Your task to perform on an android device: Clear the shopping cart on walmart. Search for "logitech g910" on walmart, select the first entry, and add it to the cart. Image 0: 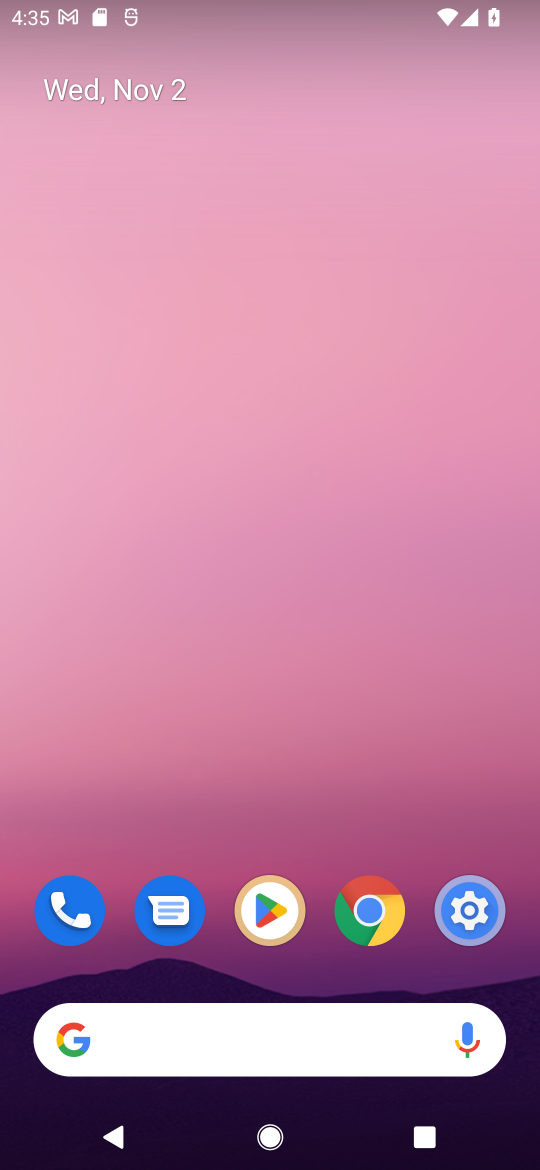
Step 0: click (296, 1045)
Your task to perform on an android device: Clear the shopping cart on walmart. Search for "logitech g910" on walmart, select the first entry, and add it to the cart. Image 1: 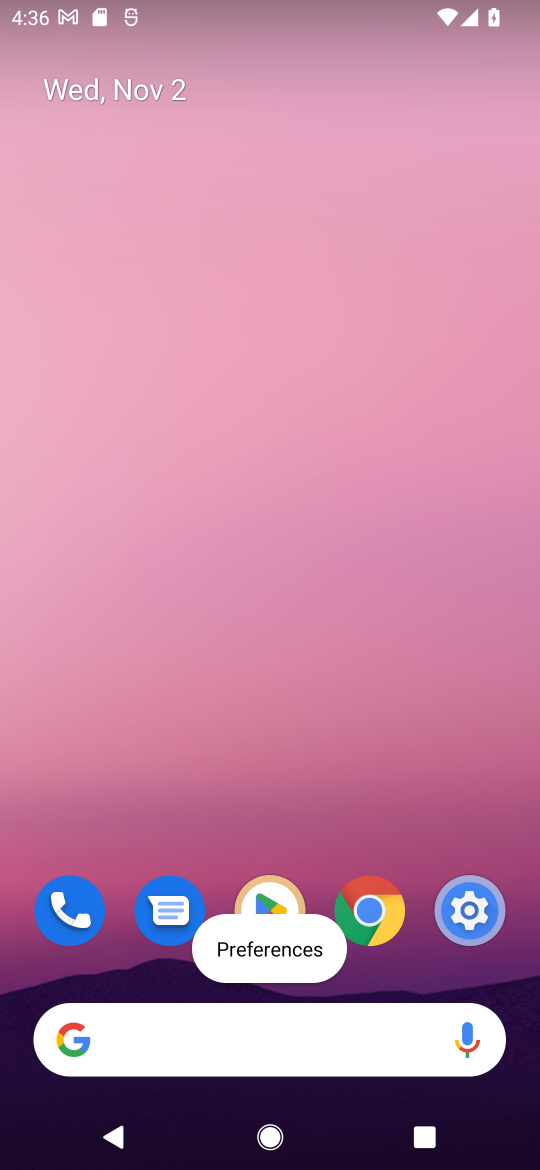
Step 1: click (293, 1042)
Your task to perform on an android device: Clear the shopping cart on walmart. Search for "logitech g910" on walmart, select the first entry, and add it to the cart. Image 2: 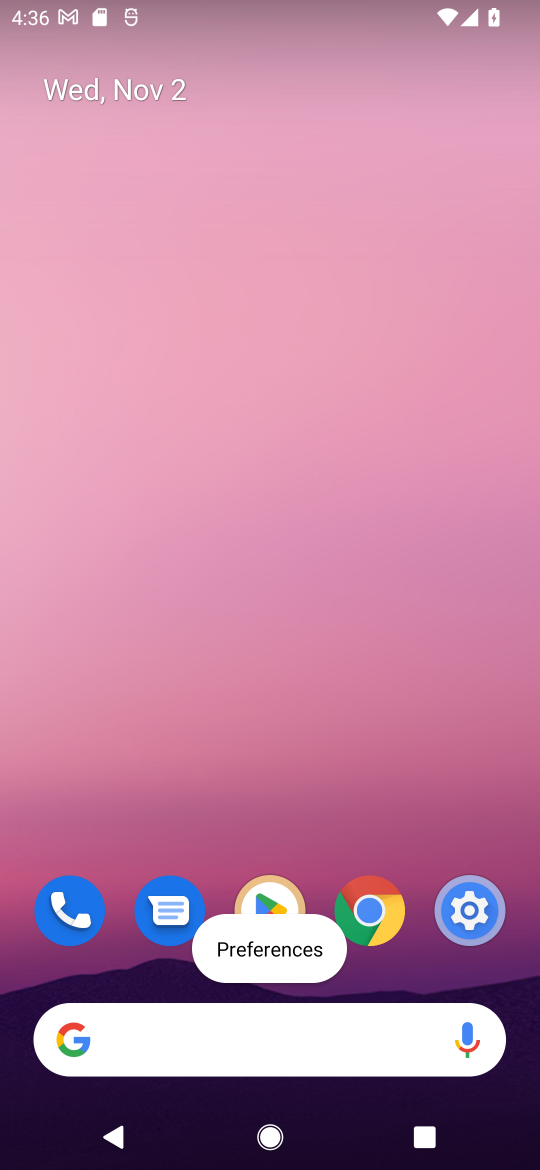
Step 2: click (228, 1026)
Your task to perform on an android device: Clear the shopping cart on walmart. Search for "logitech g910" on walmart, select the first entry, and add it to the cart. Image 3: 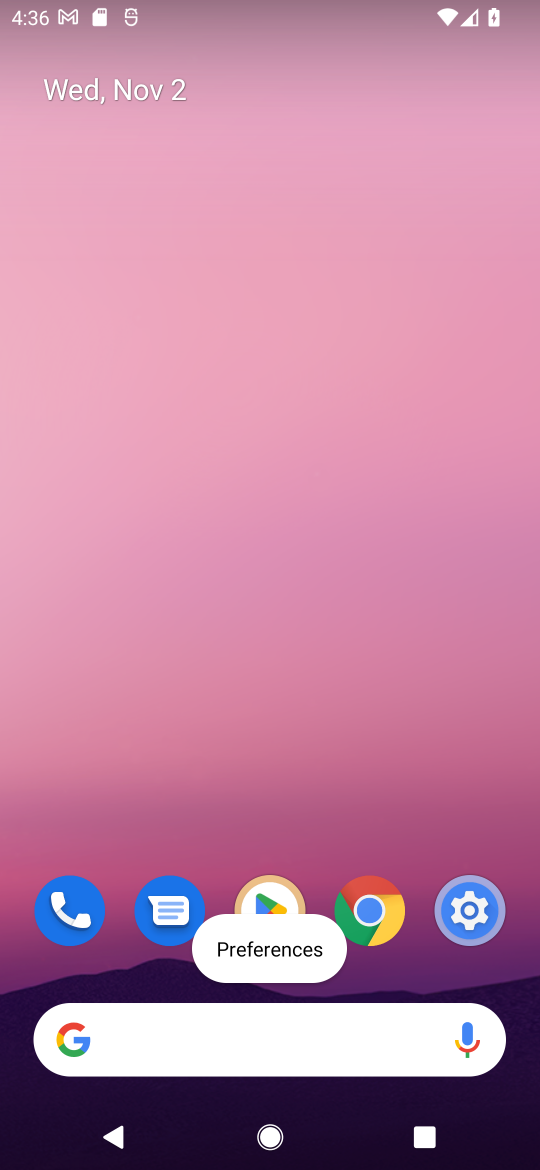
Step 3: click (174, 1034)
Your task to perform on an android device: Clear the shopping cart on walmart. Search for "logitech g910" on walmart, select the first entry, and add it to the cart. Image 4: 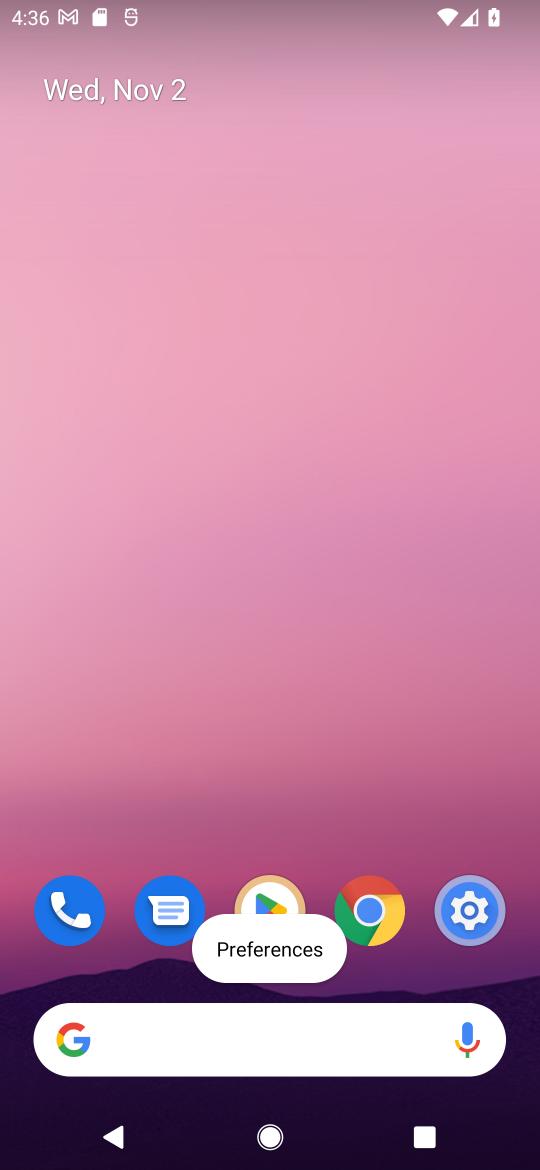
Step 4: click (174, 1034)
Your task to perform on an android device: Clear the shopping cart on walmart. Search for "logitech g910" on walmart, select the first entry, and add it to the cart. Image 5: 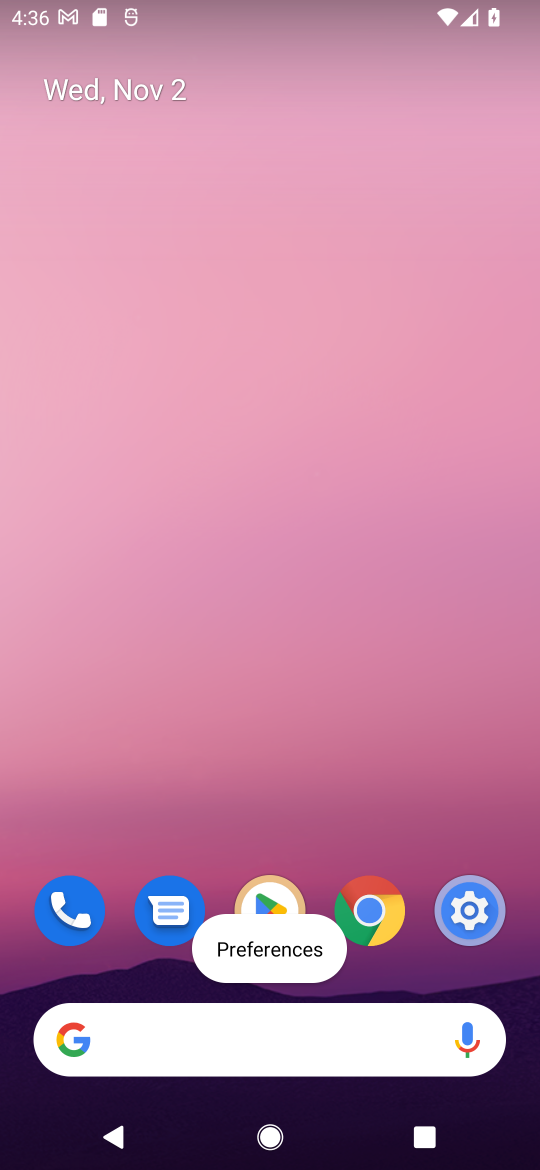
Step 5: click (174, 1034)
Your task to perform on an android device: Clear the shopping cart on walmart. Search for "logitech g910" on walmart, select the first entry, and add it to the cart. Image 6: 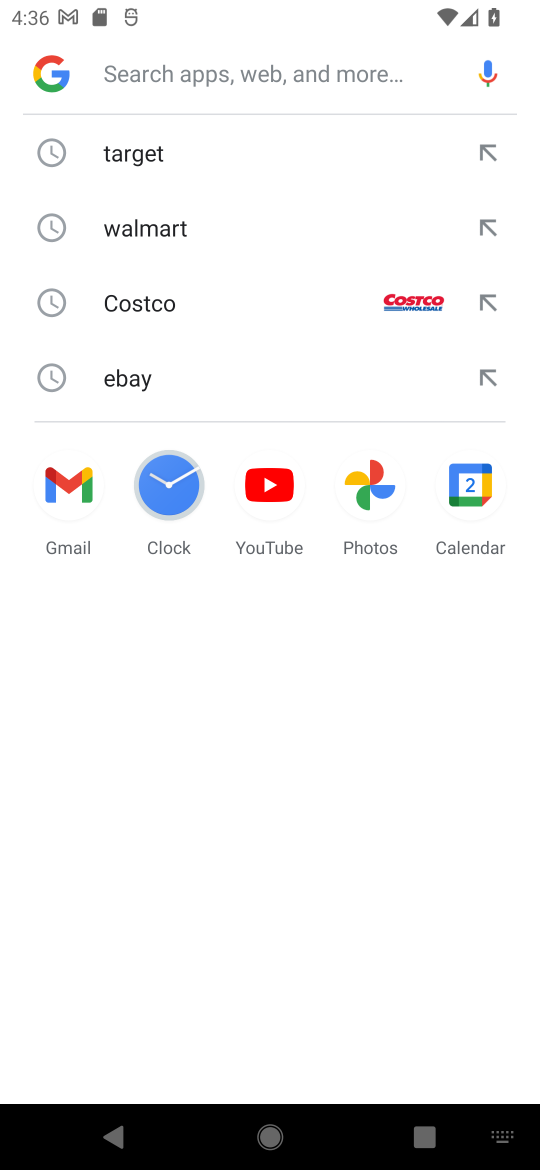
Step 6: type "walmart"
Your task to perform on an android device: Clear the shopping cart on walmart. Search for "logitech g910" on walmart, select the first entry, and add it to the cart. Image 7: 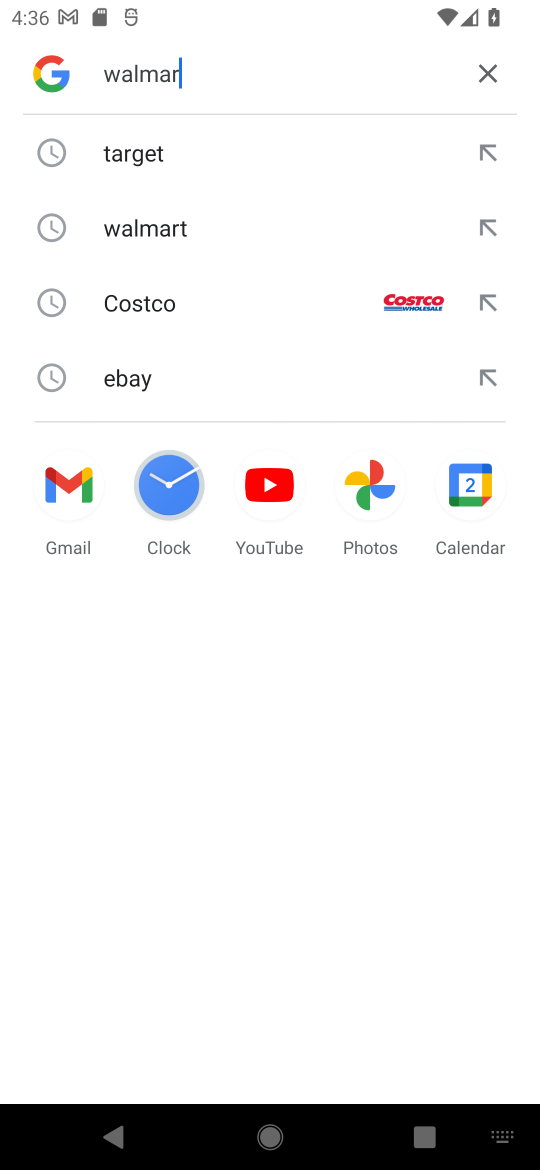
Step 7: type ""
Your task to perform on an android device: Clear the shopping cart on walmart. Search for "logitech g910" on walmart, select the first entry, and add it to the cart. Image 8: 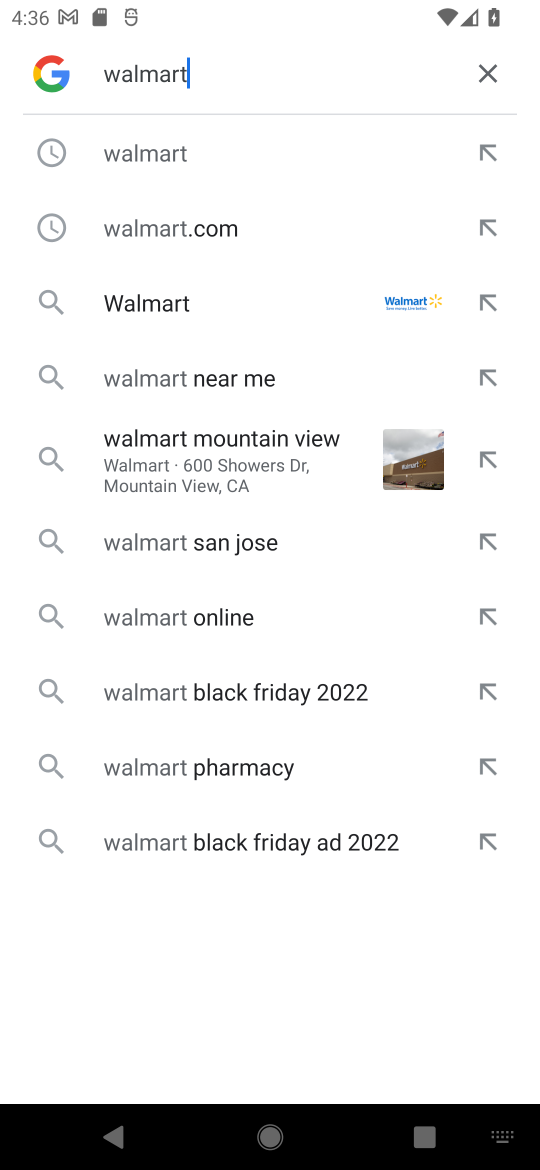
Step 8: press enter
Your task to perform on an android device: Clear the shopping cart on walmart. Search for "logitech g910" on walmart, select the first entry, and add it to the cart. Image 9: 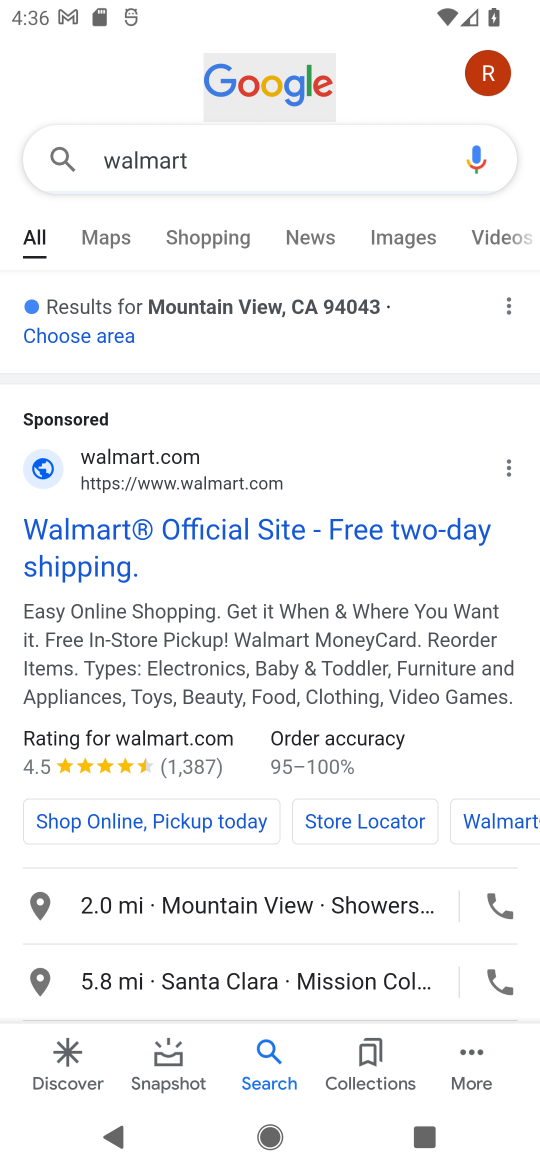
Step 9: click (128, 529)
Your task to perform on an android device: Clear the shopping cart on walmart. Search for "logitech g910" on walmart, select the first entry, and add it to the cart. Image 10: 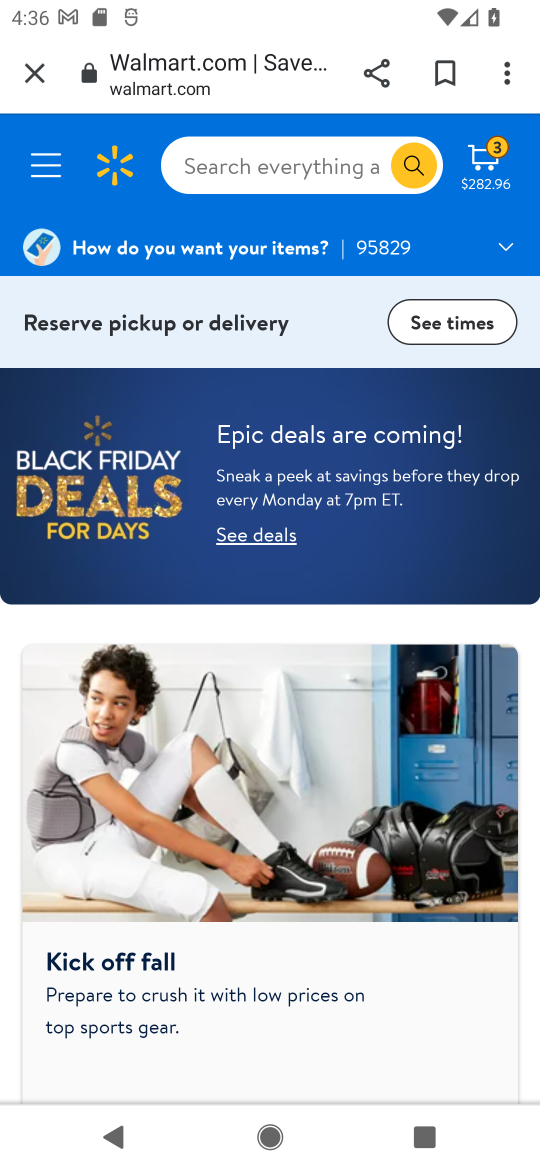
Step 10: click (281, 144)
Your task to perform on an android device: Clear the shopping cart on walmart. Search for "logitech g910" on walmart, select the first entry, and add it to the cart. Image 11: 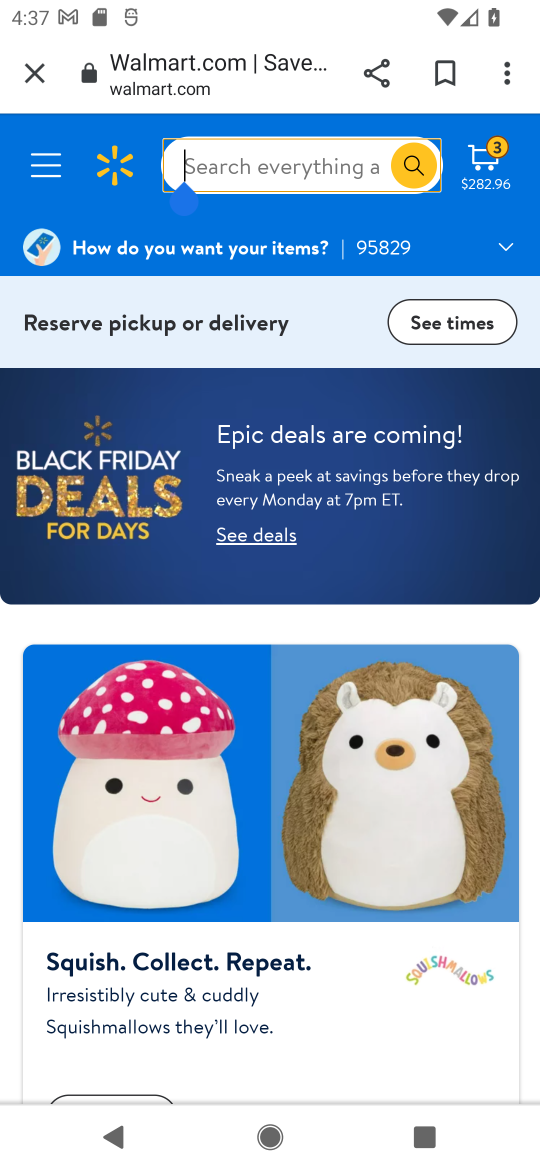
Step 11: click (277, 159)
Your task to perform on an android device: Clear the shopping cart on walmart. Search for "logitech g910" on walmart, select the first entry, and add it to the cart. Image 12: 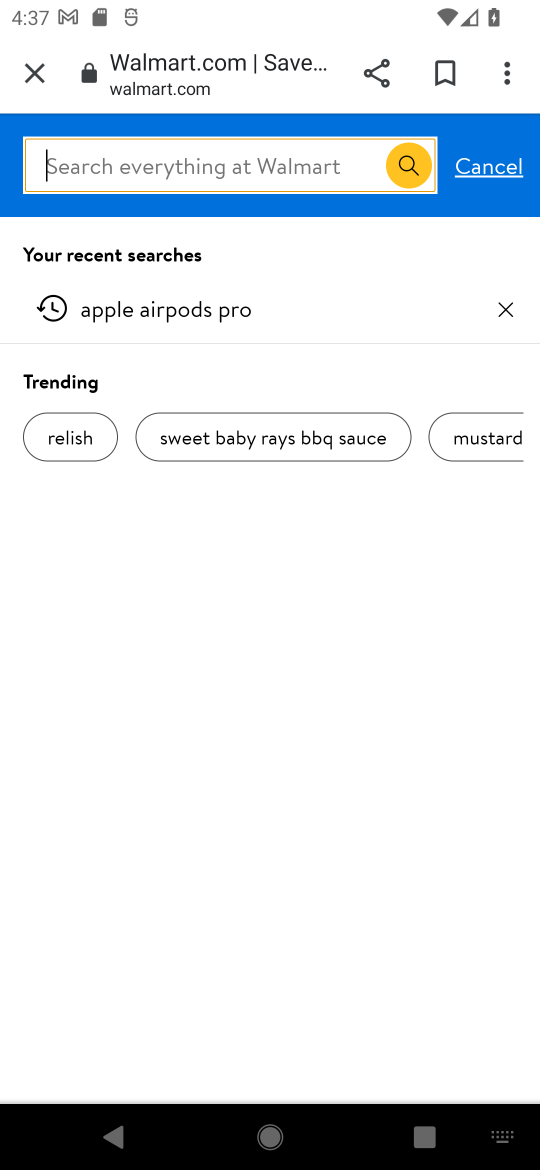
Step 12: click (496, 311)
Your task to perform on an android device: Clear the shopping cart on walmart. Search for "logitech g910" on walmart, select the first entry, and add it to the cart. Image 13: 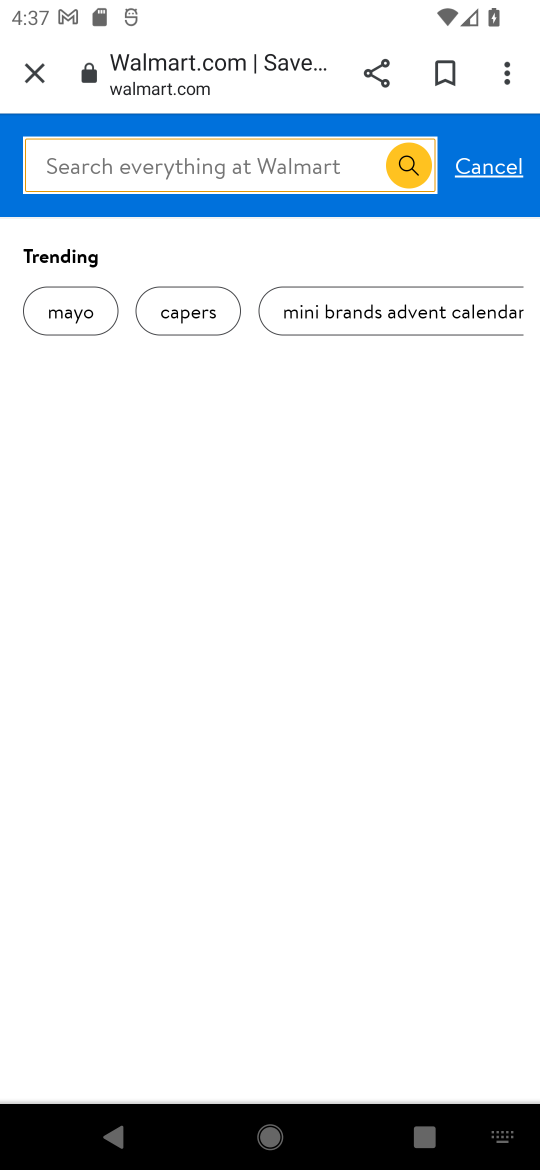
Step 13: click (502, 173)
Your task to perform on an android device: Clear the shopping cart on walmart. Search for "logitech g910" on walmart, select the first entry, and add it to the cart. Image 14: 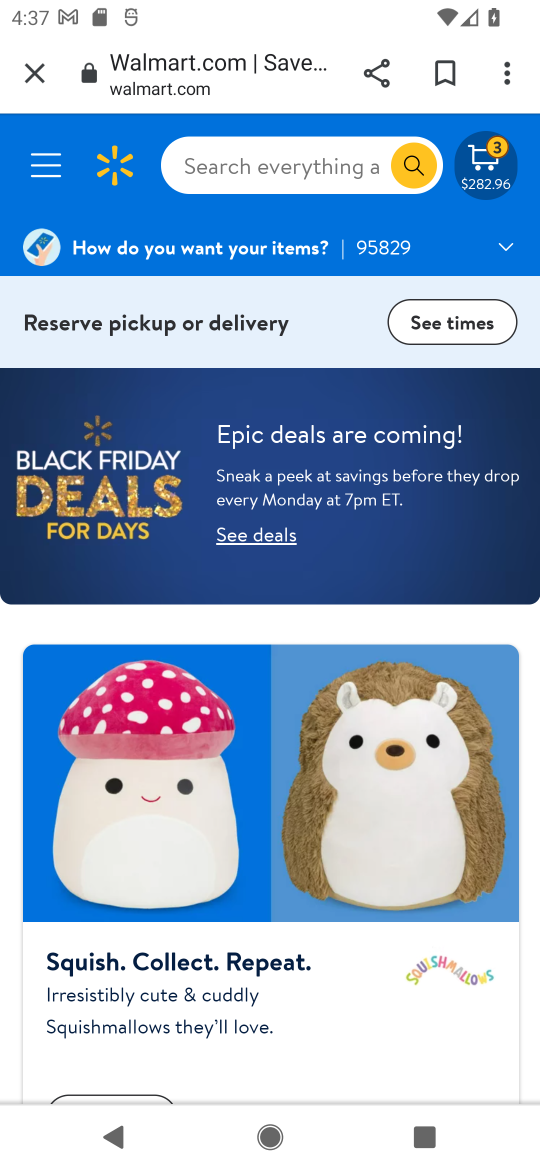
Step 14: click (502, 173)
Your task to perform on an android device: Clear the shopping cart on walmart. Search for "logitech g910" on walmart, select the first entry, and add it to the cart. Image 15: 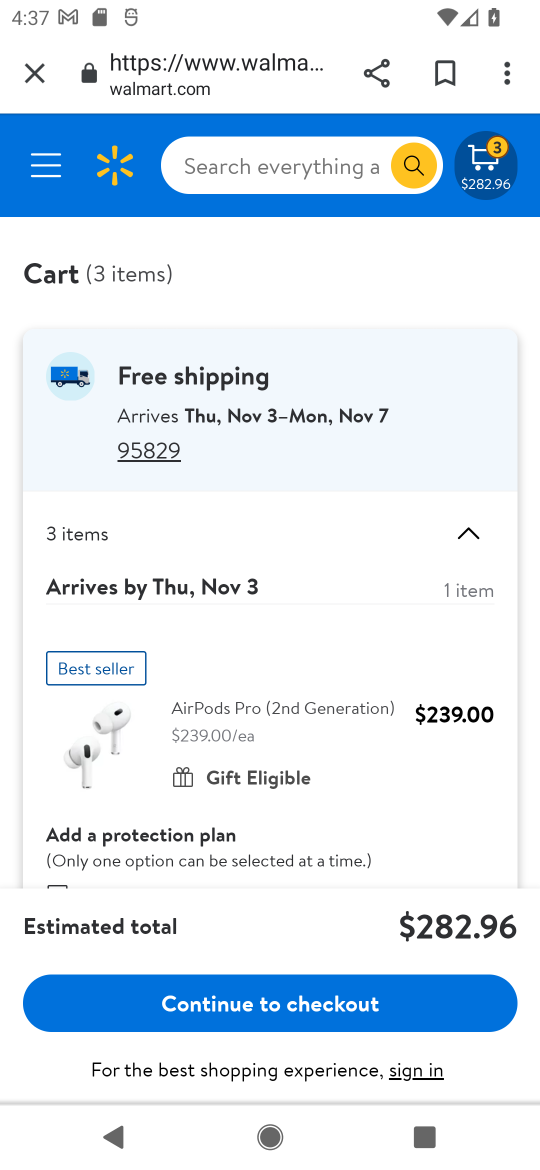
Step 15: click (496, 180)
Your task to perform on an android device: Clear the shopping cart on walmart. Search for "logitech g910" on walmart, select the first entry, and add it to the cart. Image 16: 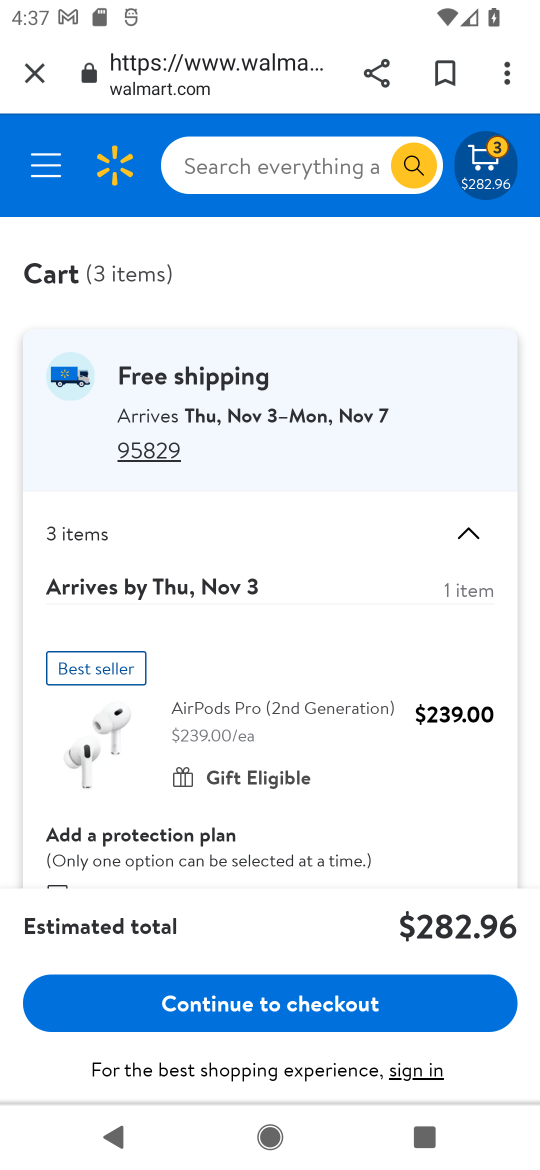
Step 16: drag from (396, 755) to (362, 513)
Your task to perform on an android device: Clear the shopping cart on walmart. Search for "logitech g910" on walmart, select the first entry, and add it to the cart. Image 17: 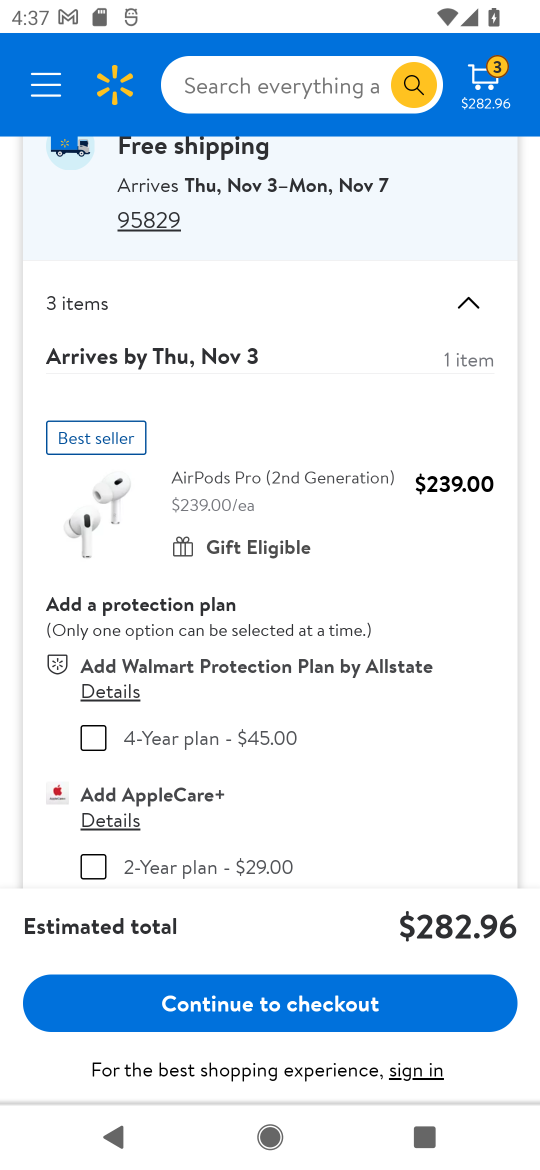
Step 17: drag from (356, 709) to (348, 570)
Your task to perform on an android device: Clear the shopping cart on walmart. Search for "logitech g910" on walmart, select the first entry, and add it to the cart. Image 18: 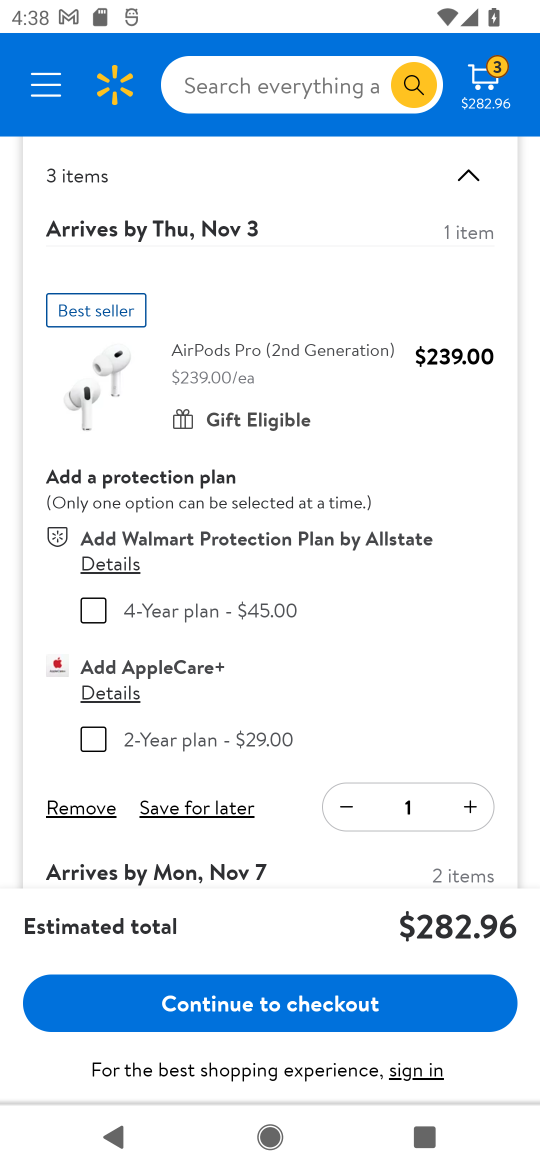
Step 18: drag from (377, 449) to (371, 353)
Your task to perform on an android device: Clear the shopping cart on walmart. Search for "logitech g910" on walmart, select the first entry, and add it to the cart. Image 19: 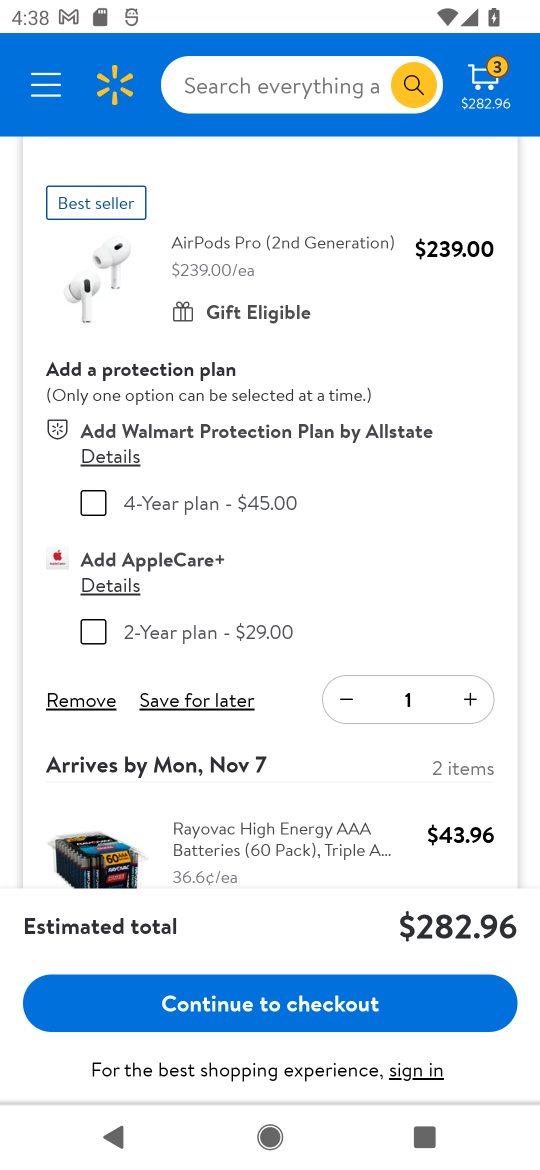
Step 19: drag from (370, 540) to (412, 350)
Your task to perform on an android device: Clear the shopping cart on walmart. Search for "logitech g910" on walmart, select the first entry, and add it to the cart. Image 20: 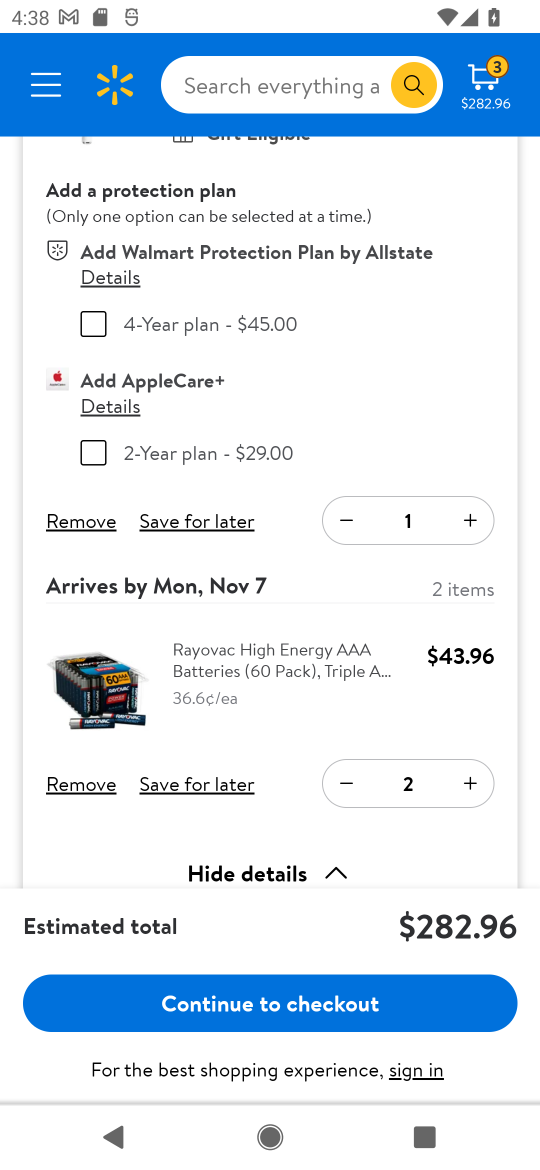
Step 20: click (343, 519)
Your task to perform on an android device: Clear the shopping cart on walmart. Search for "logitech g910" on walmart, select the first entry, and add it to the cart. Image 21: 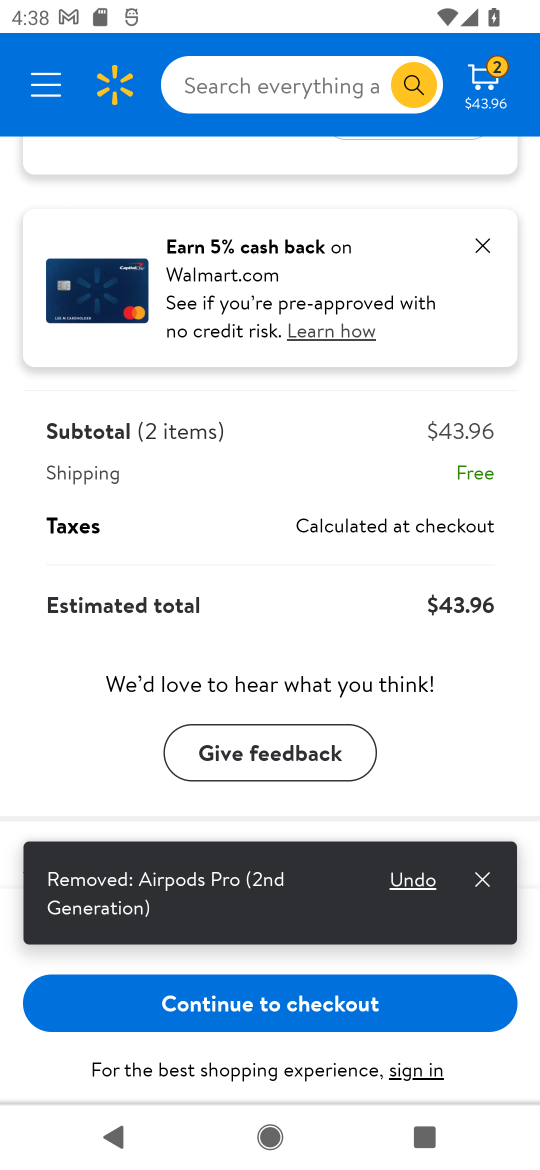
Step 21: drag from (330, 627) to (327, 482)
Your task to perform on an android device: Clear the shopping cart on walmart. Search for "logitech g910" on walmart, select the first entry, and add it to the cart. Image 22: 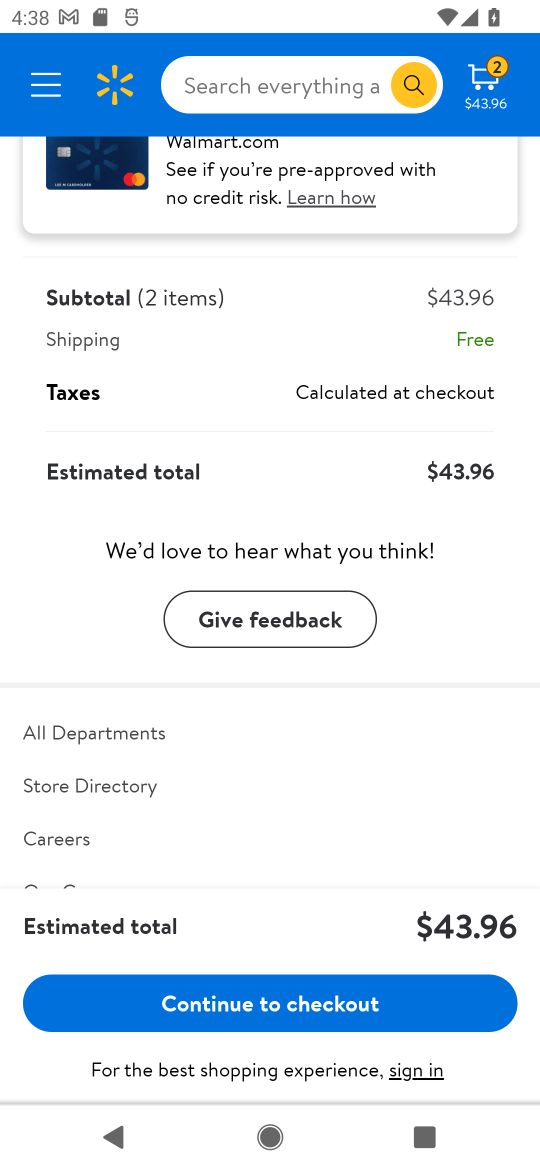
Step 22: drag from (329, 347) to (400, 750)
Your task to perform on an android device: Clear the shopping cart on walmart. Search for "logitech g910" on walmart, select the first entry, and add it to the cart. Image 23: 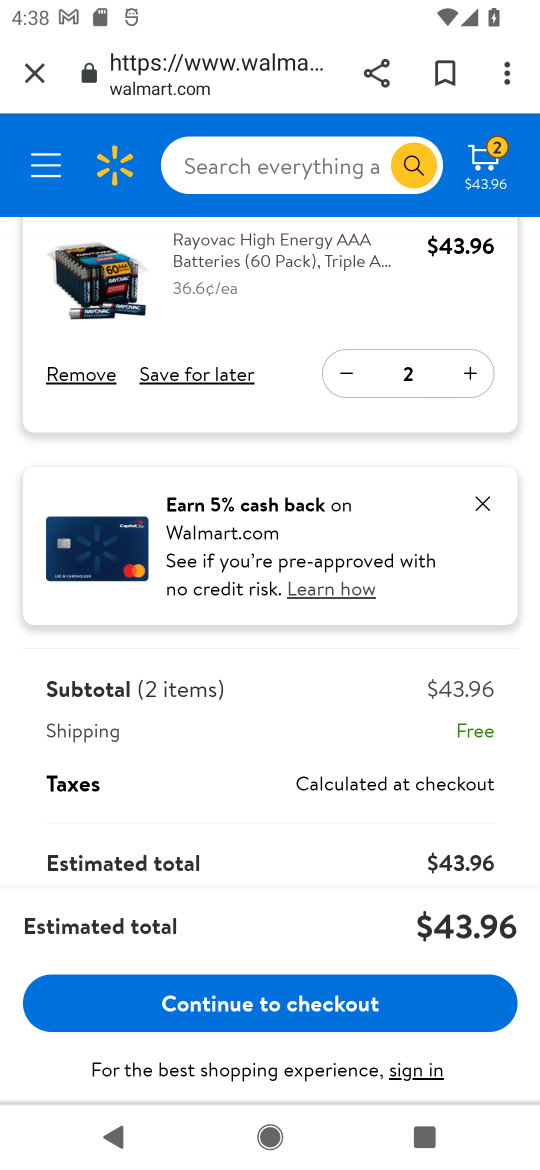
Step 23: click (347, 373)
Your task to perform on an android device: Clear the shopping cart on walmart. Search for "logitech g910" on walmart, select the first entry, and add it to the cart. Image 24: 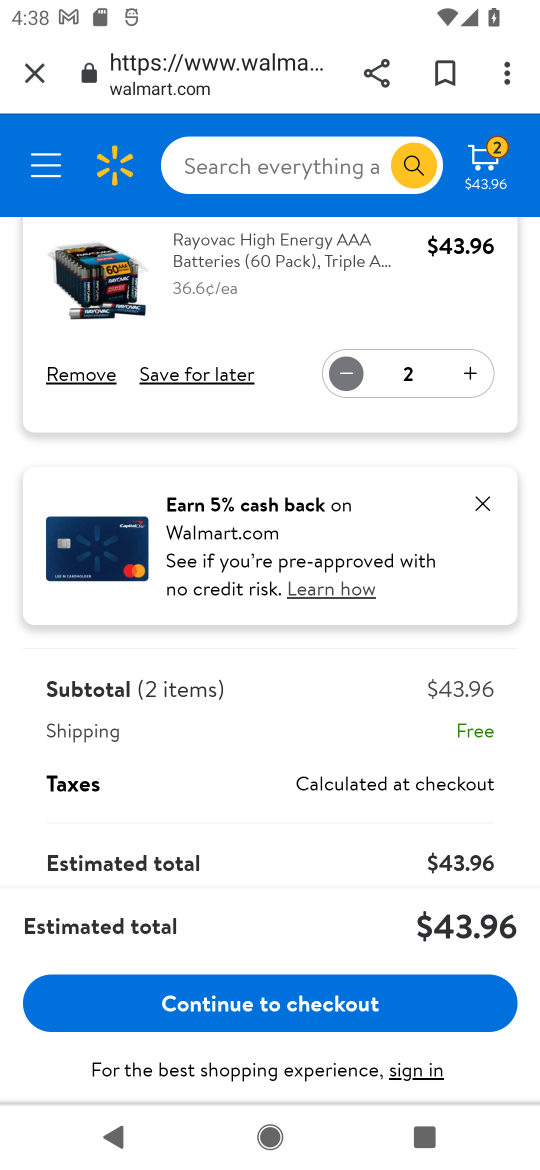
Step 24: click (347, 373)
Your task to perform on an android device: Clear the shopping cart on walmart. Search for "logitech g910" on walmart, select the first entry, and add it to the cart. Image 25: 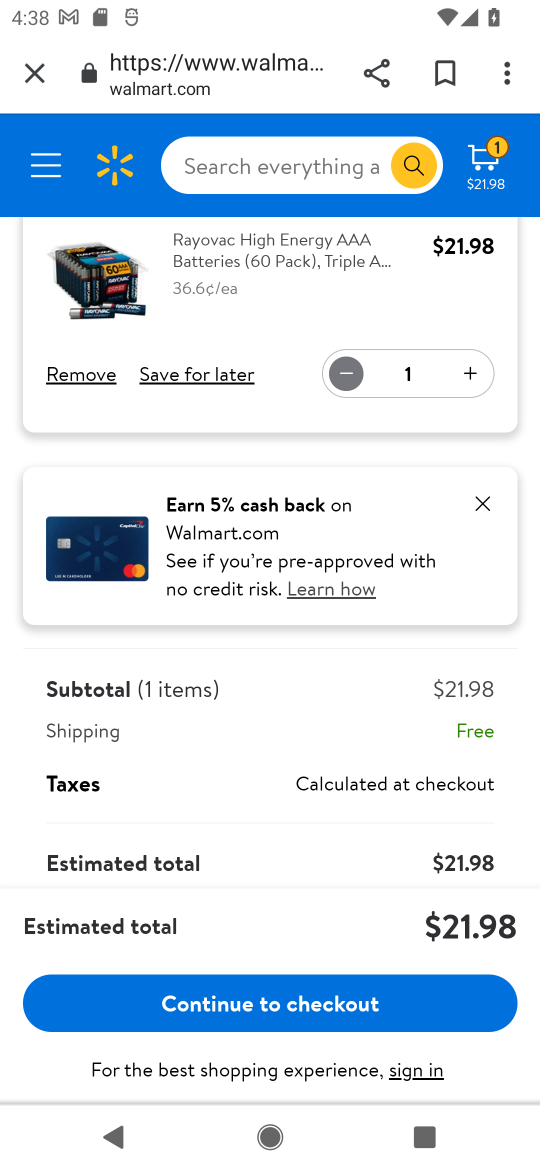
Step 25: click (347, 373)
Your task to perform on an android device: Clear the shopping cart on walmart. Search for "logitech g910" on walmart, select the first entry, and add it to the cart. Image 26: 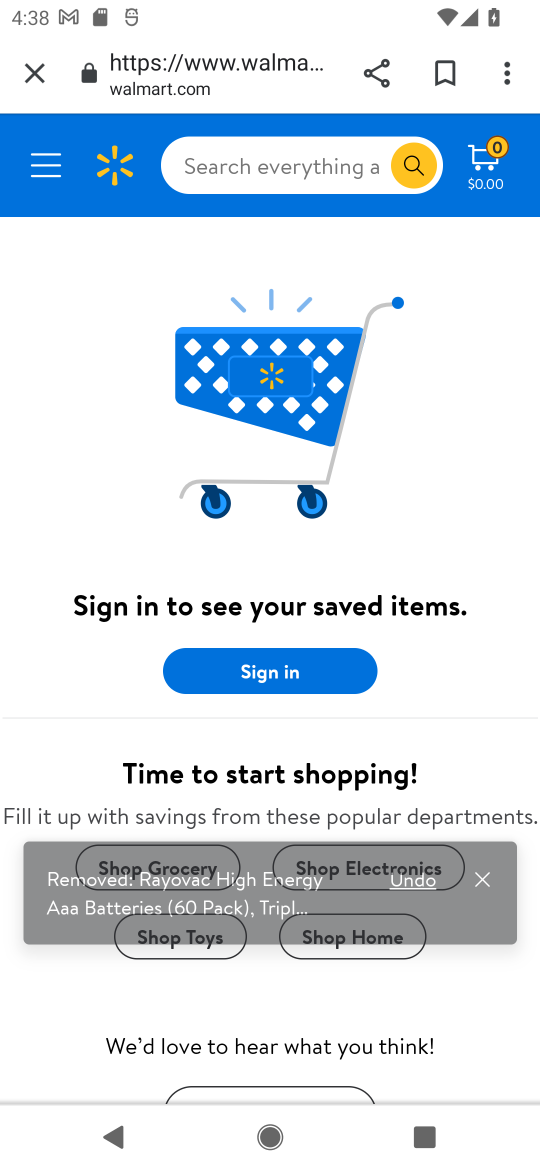
Step 26: click (328, 176)
Your task to perform on an android device: Clear the shopping cart on walmart. Search for "logitech g910" on walmart, select the first entry, and add it to the cart. Image 27: 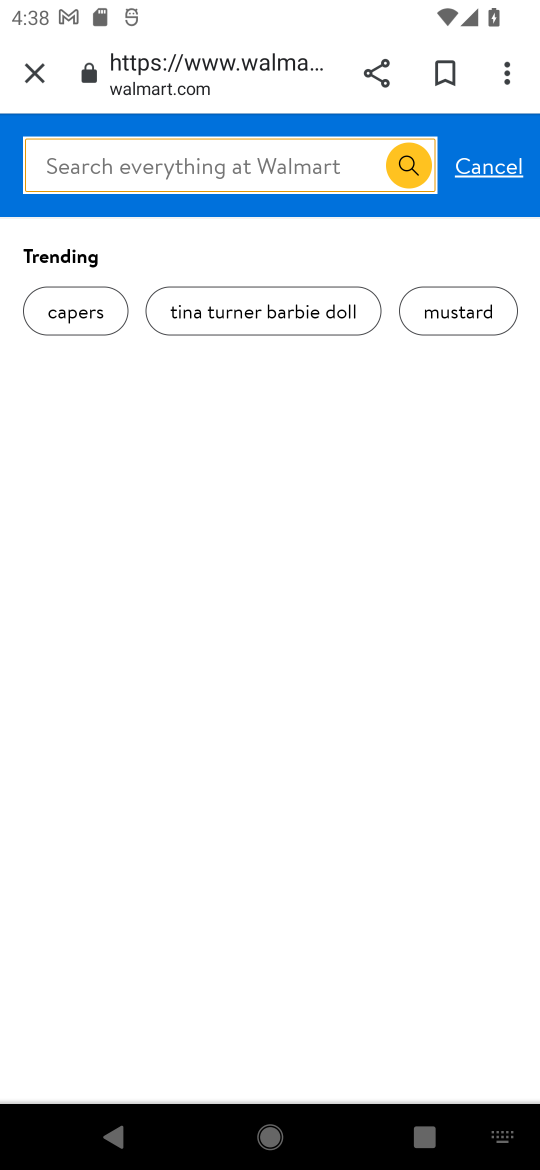
Step 27: type "logitech g910"
Your task to perform on an android device: Clear the shopping cart on walmart. Search for "logitech g910" on walmart, select the first entry, and add it to the cart. Image 28: 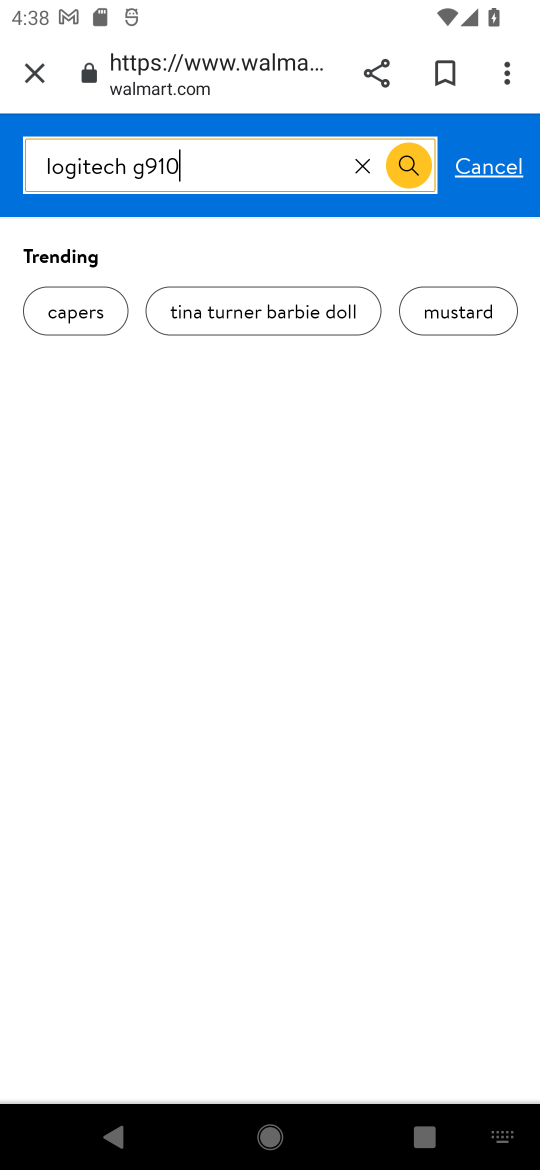
Step 28: type ""
Your task to perform on an android device: Clear the shopping cart on walmart. Search for "logitech g910" on walmart, select the first entry, and add it to the cart. Image 29: 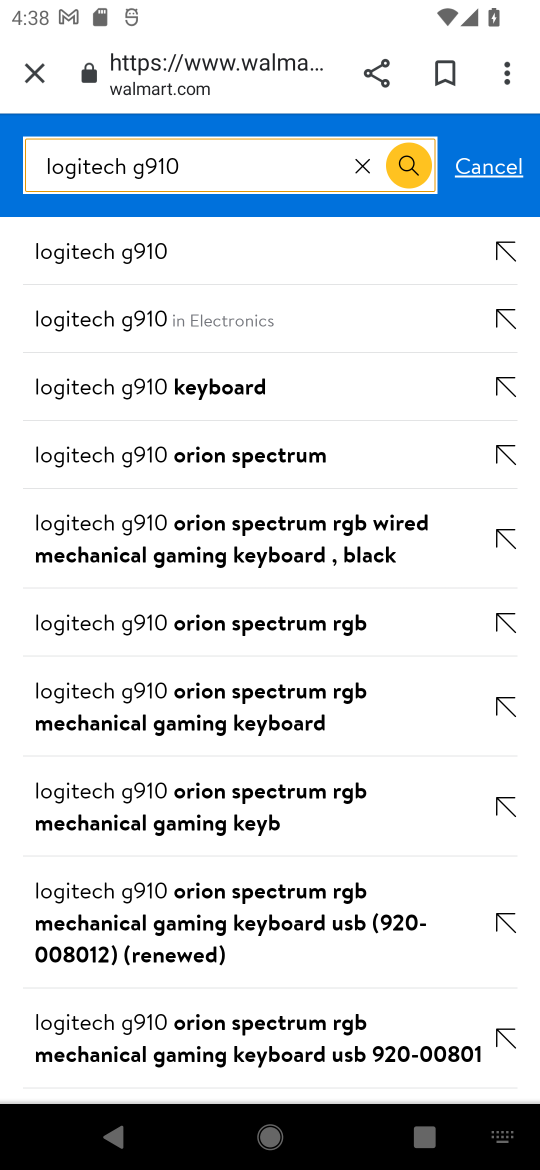
Step 29: click (413, 167)
Your task to perform on an android device: Clear the shopping cart on walmart. Search for "logitech g910" on walmart, select the first entry, and add it to the cart. Image 30: 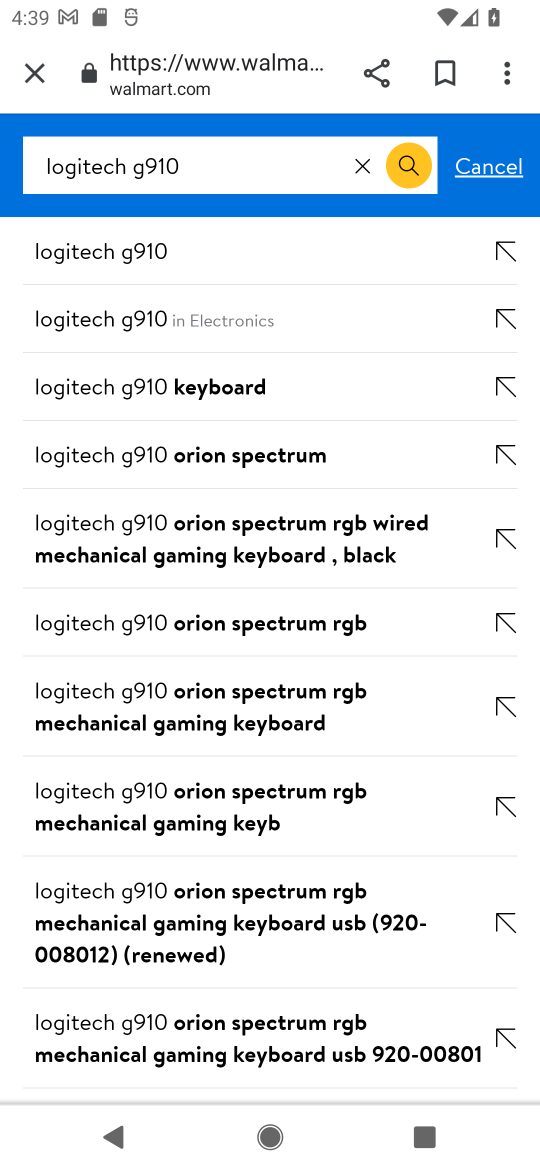
Step 30: click (413, 180)
Your task to perform on an android device: Clear the shopping cart on walmart. Search for "logitech g910" on walmart, select the first entry, and add it to the cart. Image 31: 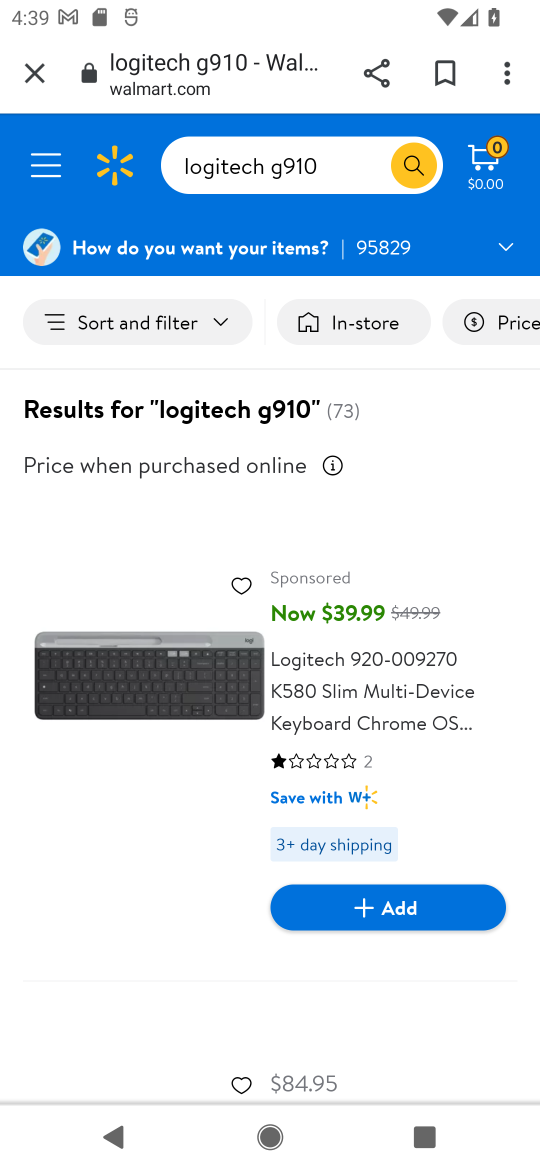
Step 31: click (422, 905)
Your task to perform on an android device: Clear the shopping cart on walmart. Search for "logitech g910" on walmart, select the first entry, and add it to the cart. Image 32: 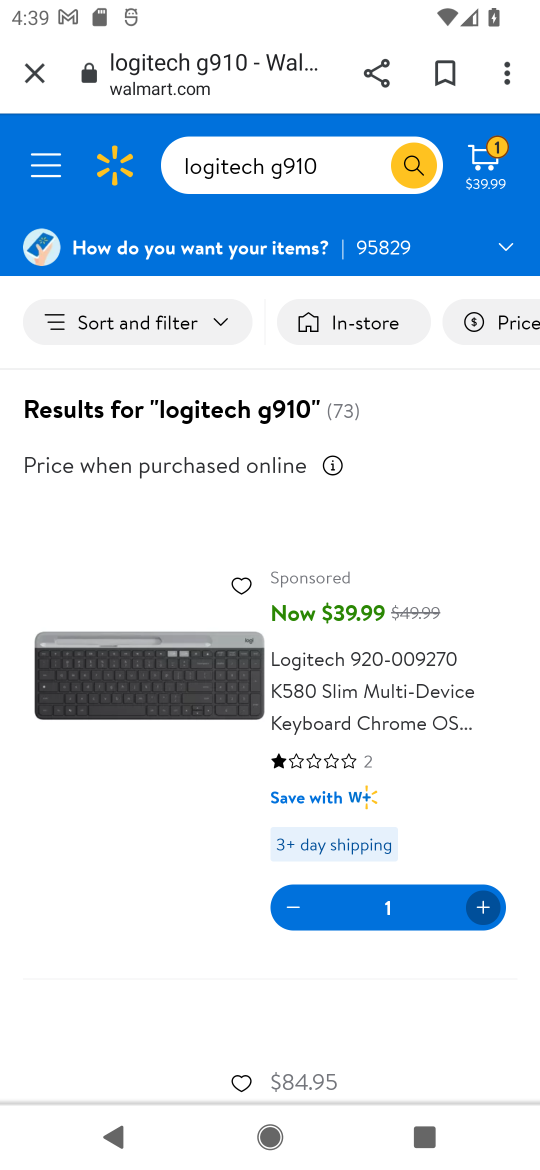
Step 32: task complete